Your task to perform on an android device: Go to privacy settings Image 0: 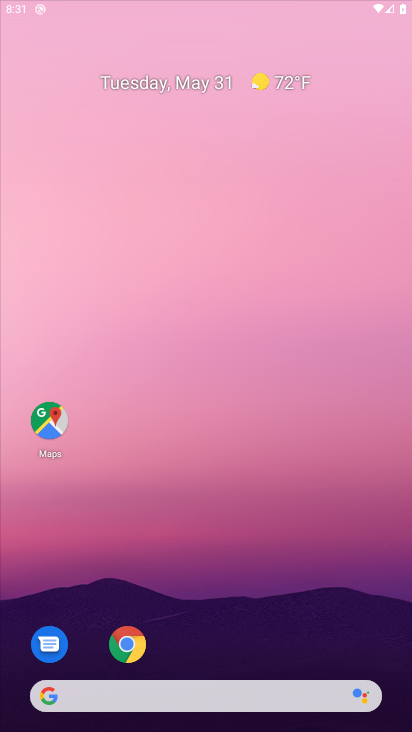
Step 0: press home button
Your task to perform on an android device: Go to privacy settings Image 1: 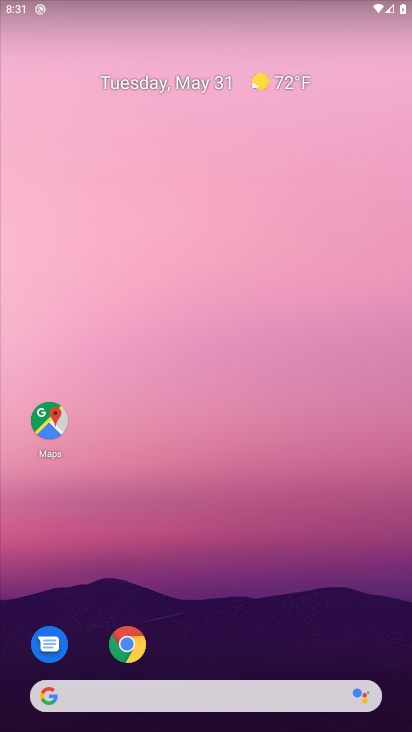
Step 1: press home button
Your task to perform on an android device: Go to privacy settings Image 2: 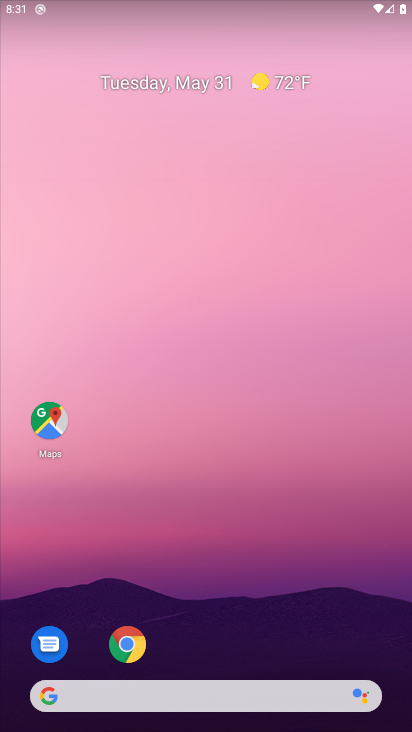
Step 2: drag from (225, 653) to (234, 32)
Your task to perform on an android device: Go to privacy settings Image 3: 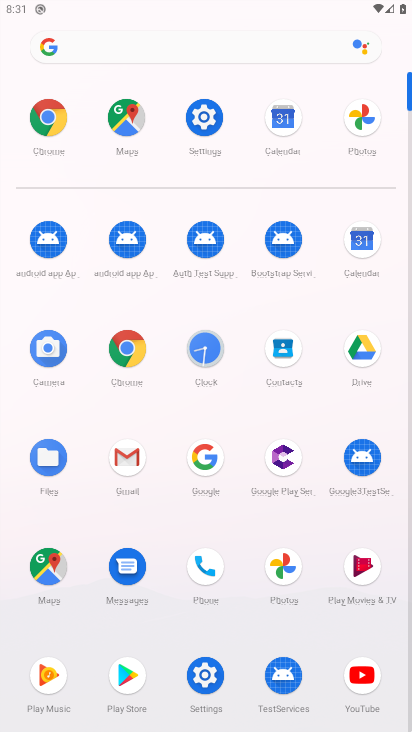
Step 3: click (198, 112)
Your task to perform on an android device: Go to privacy settings Image 4: 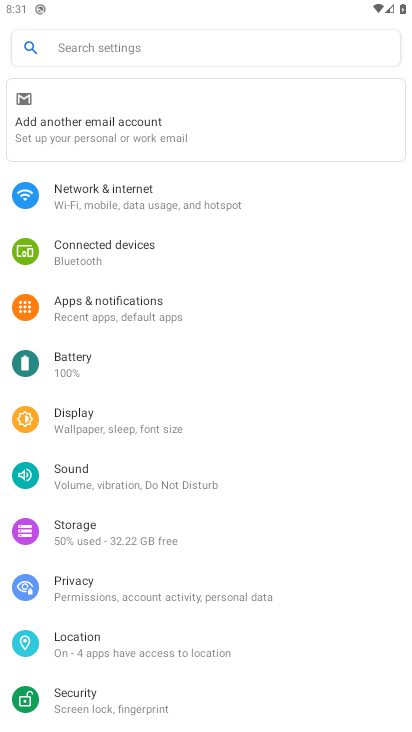
Step 4: click (112, 576)
Your task to perform on an android device: Go to privacy settings Image 5: 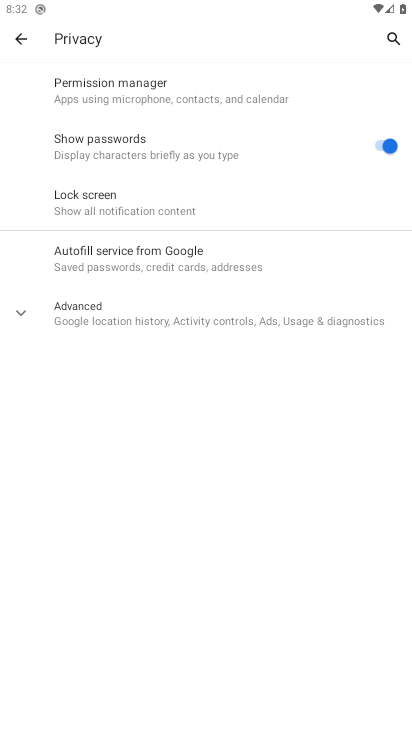
Step 5: click (22, 306)
Your task to perform on an android device: Go to privacy settings Image 6: 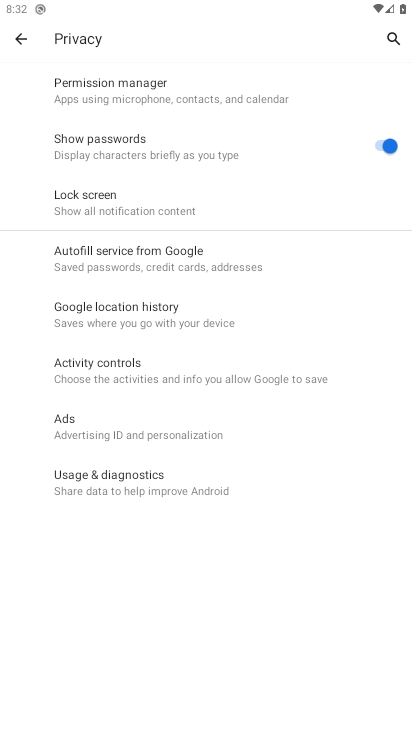
Step 6: task complete